Your task to perform on an android device: What is the recent news? Image 0: 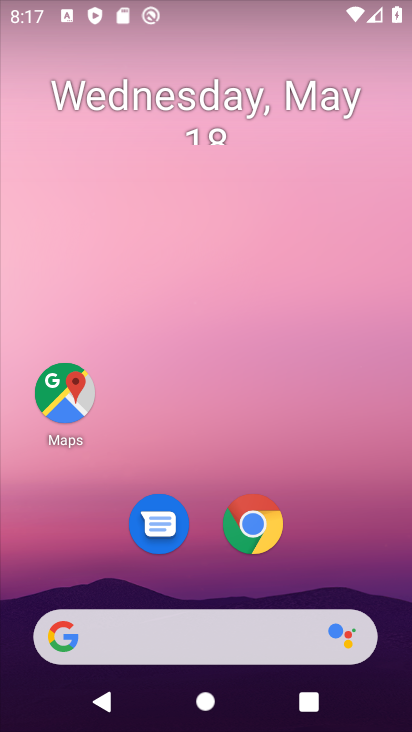
Step 0: click (219, 642)
Your task to perform on an android device: What is the recent news? Image 1: 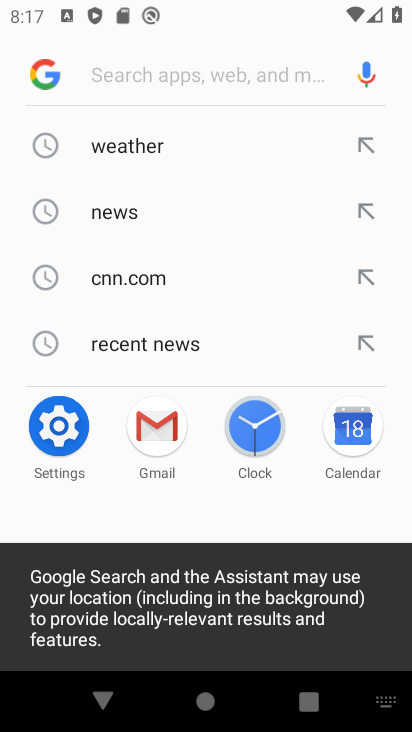
Step 1: click (67, 200)
Your task to perform on an android device: What is the recent news? Image 2: 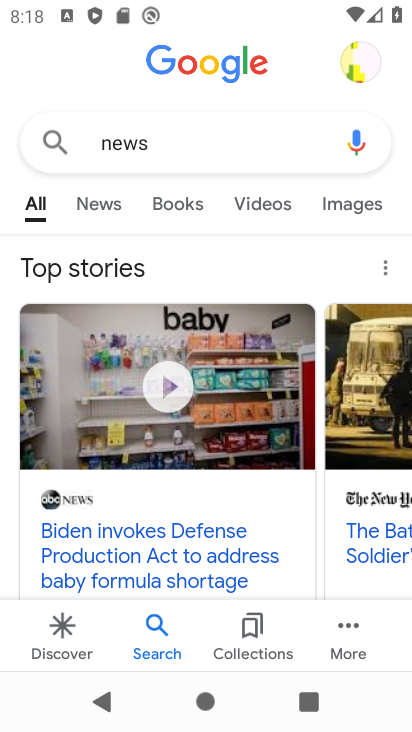
Step 2: drag from (233, 490) to (265, 216)
Your task to perform on an android device: What is the recent news? Image 3: 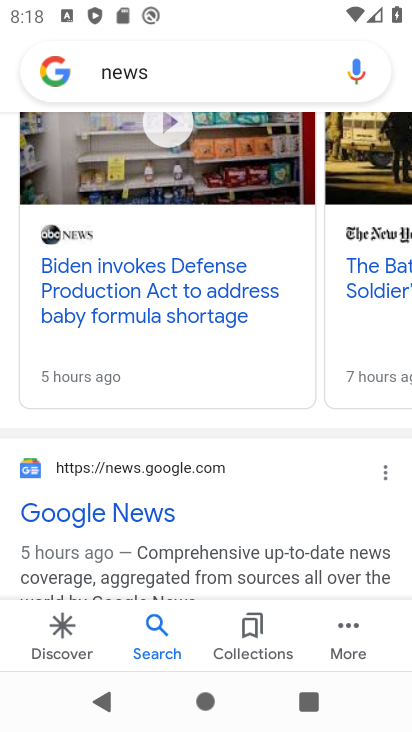
Step 3: drag from (261, 319) to (269, 586)
Your task to perform on an android device: What is the recent news? Image 4: 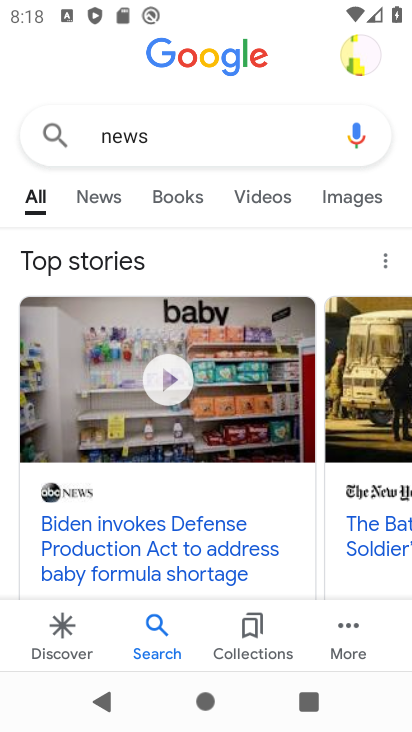
Step 4: click (101, 189)
Your task to perform on an android device: What is the recent news? Image 5: 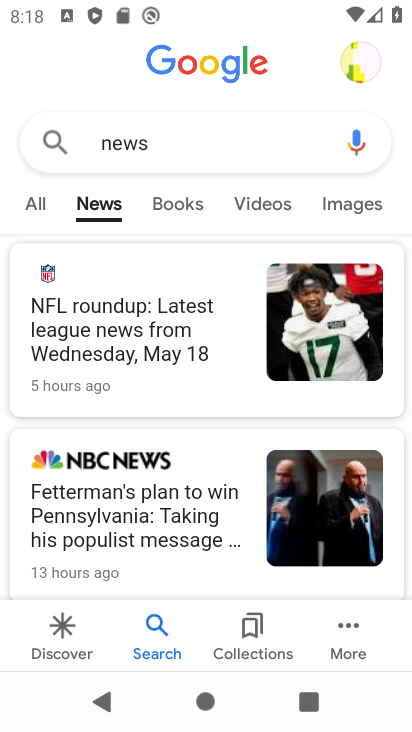
Step 5: task complete